Your task to perform on an android device: Play the last video I watched on Youtube Image 0: 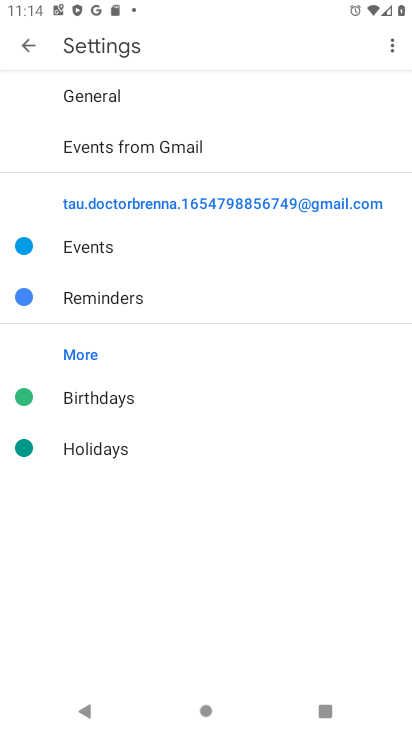
Step 0: press home button
Your task to perform on an android device: Play the last video I watched on Youtube Image 1: 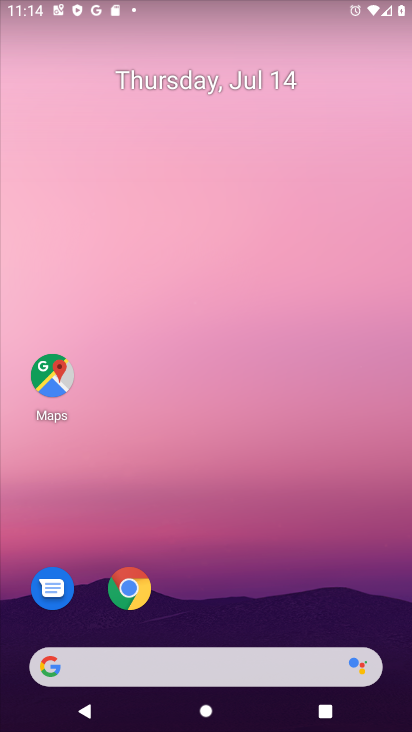
Step 1: drag from (299, 600) to (217, 82)
Your task to perform on an android device: Play the last video I watched on Youtube Image 2: 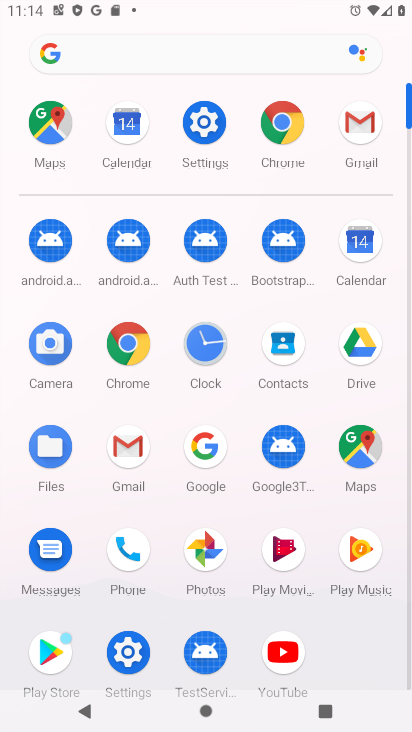
Step 2: click (282, 652)
Your task to perform on an android device: Play the last video I watched on Youtube Image 3: 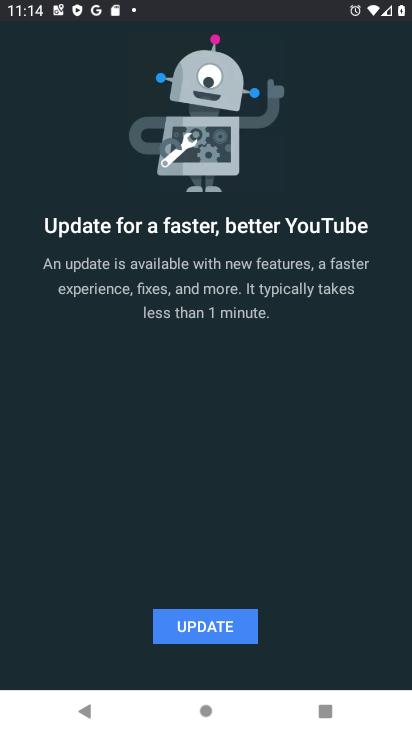
Step 3: click (216, 636)
Your task to perform on an android device: Play the last video I watched on Youtube Image 4: 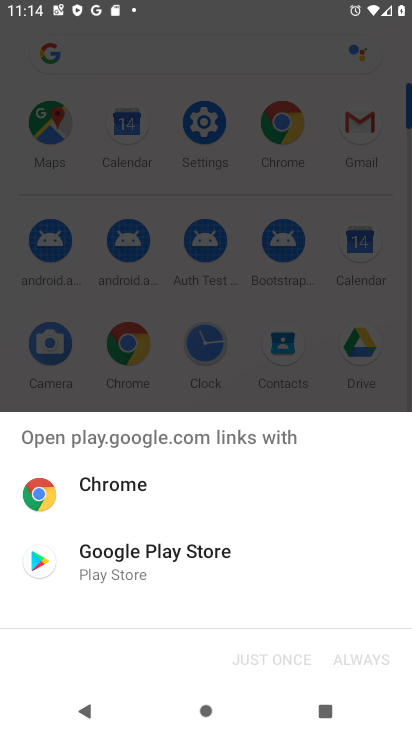
Step 4: click (192, 555)
Your task to perform on an android device: Play the last video I watched on Youtube Image 5: 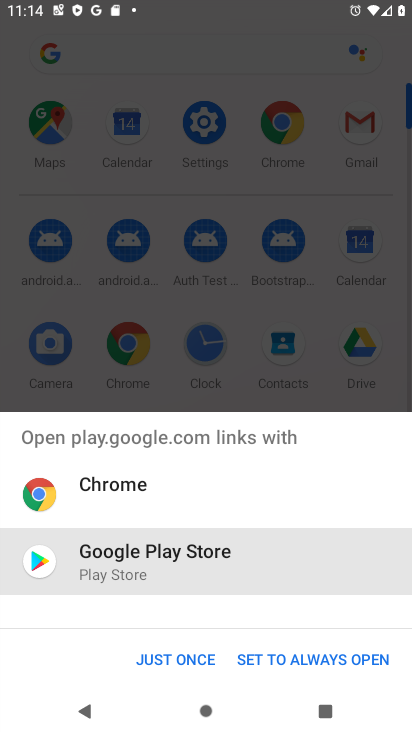
Step 5: click (204, 664)
Your task to perform on an android device: Play the last video I watched on Youtube Image 6: 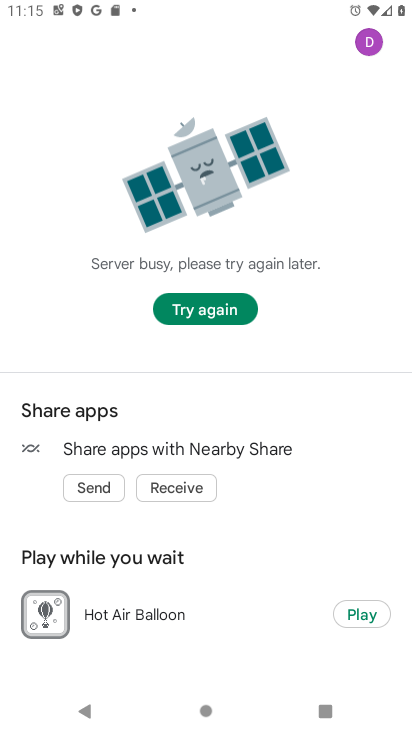
Step 6: task complete